Your task to perform on an android device: check battery use Image 0: 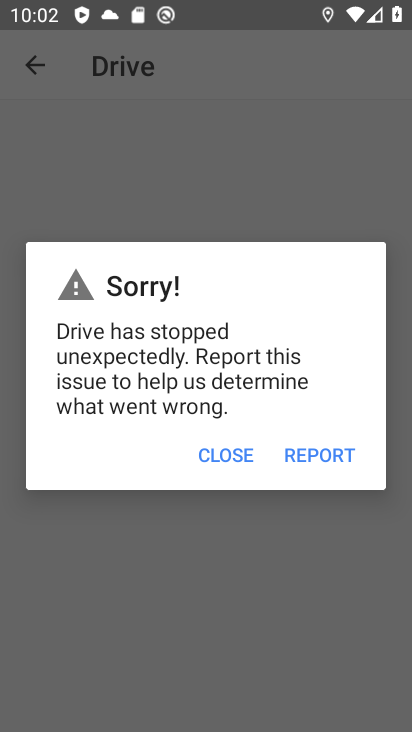
Step 0: press home button
Your task to perform on an android device: check battery use Image 1: 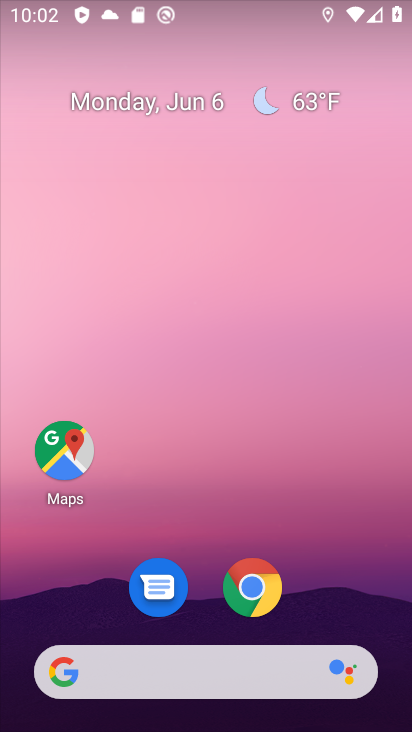
Step 1: drag from (264, 563) to (229, 132)
Your task to perform on an android device: check battery use Image 2: 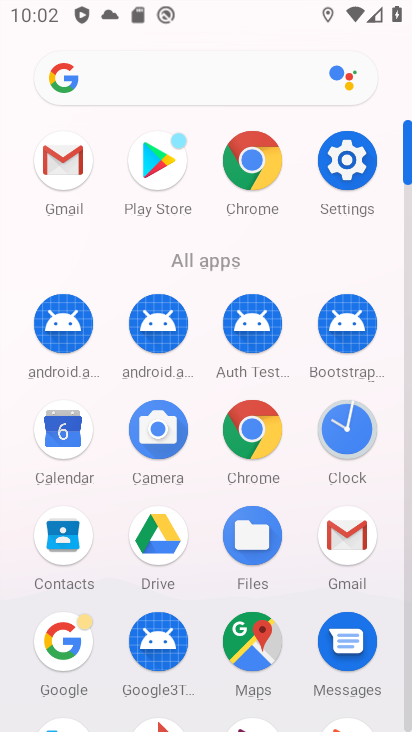
Step 2: click (338, 168)
Your task to perform on an android device: check battery use Image 3: 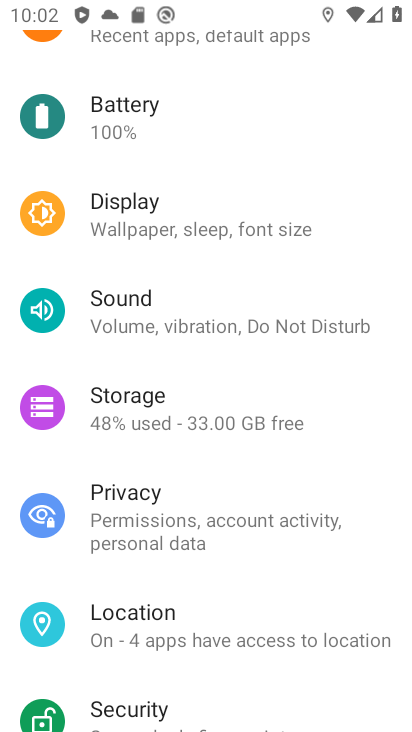
Step 3: click (146, 120)
Your task to perform on an android device: check battery use Image 4: 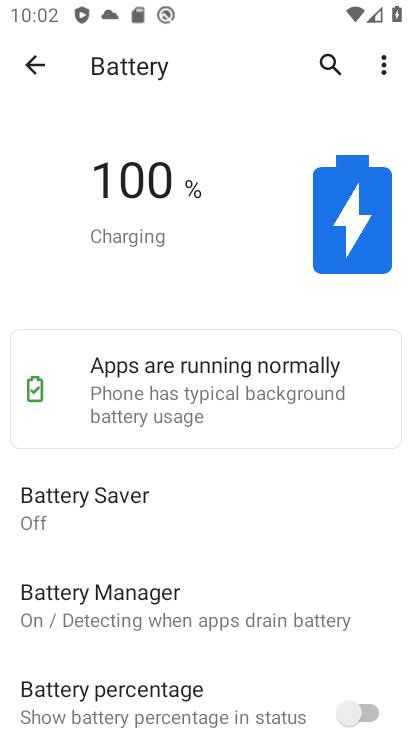
Step 4: click (390, 62)
Your task to perform on an android device: check battery use Image 5: 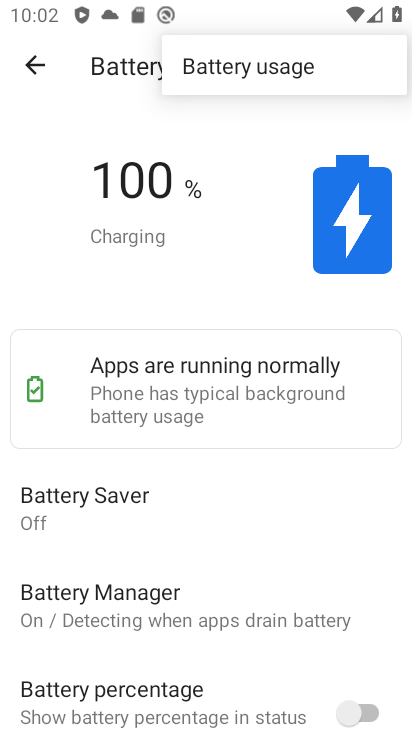
Step 5: click (295, 67)
Your task to perform on an android device: check battery use Image 6: 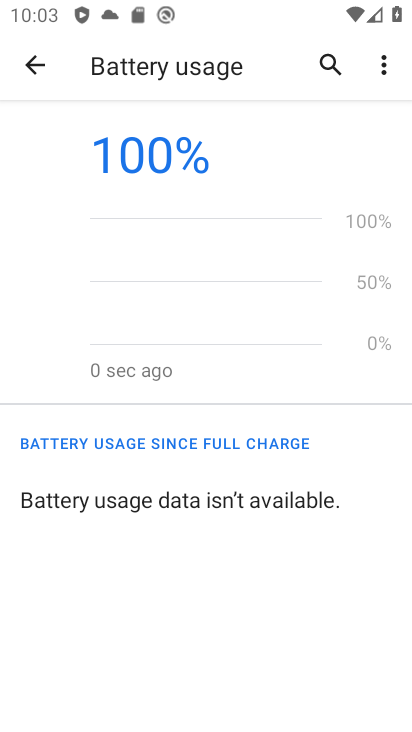
Step 6: task complete